Your task to perform on an android device: empty trash in google photos Image 0: 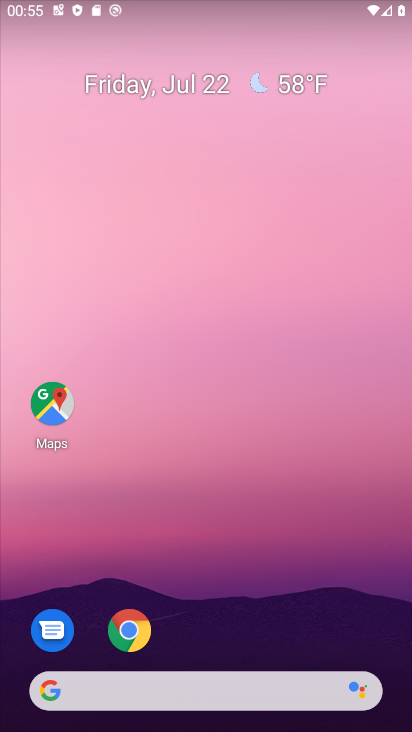
Step 0: drag from (274, 645) to (292, 62)
Your task to perform on an android device: empty trash in google photos Image 1: 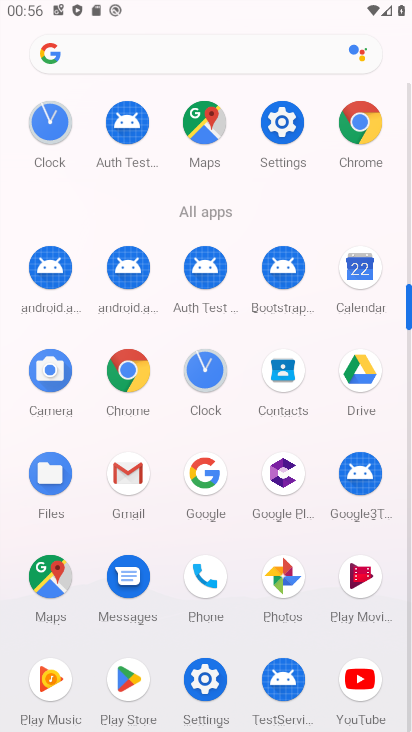
Step 1: click (276, 577)
Your task to perform on an android device: empty trash in google photos Image 2: 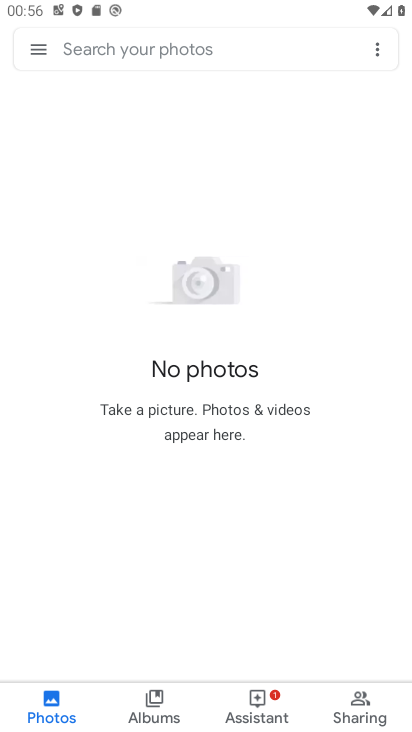
Step 2: click (34, 49)
Your task to perform on an android device: empty trash in google photos Image 3: 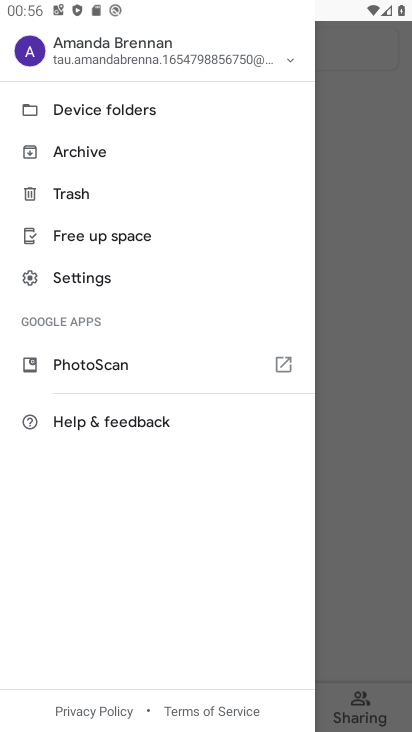
Step 3: click (63, 189)
Your task to perform on an android device: empty trash in google photos Image 4: 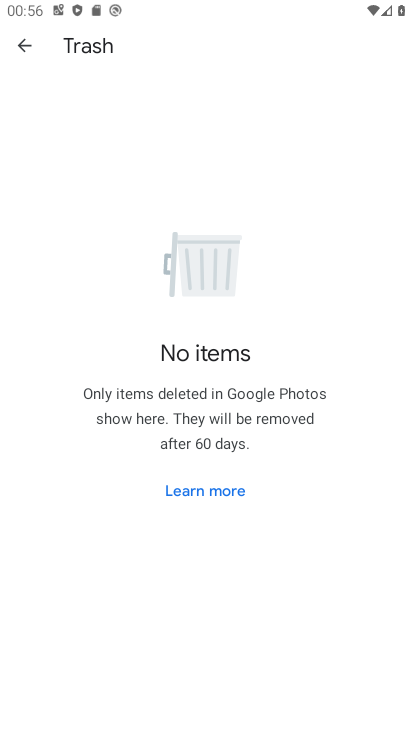
Step 4: task complete